Your task to perform on an android device: What is the recent news? Image 0: 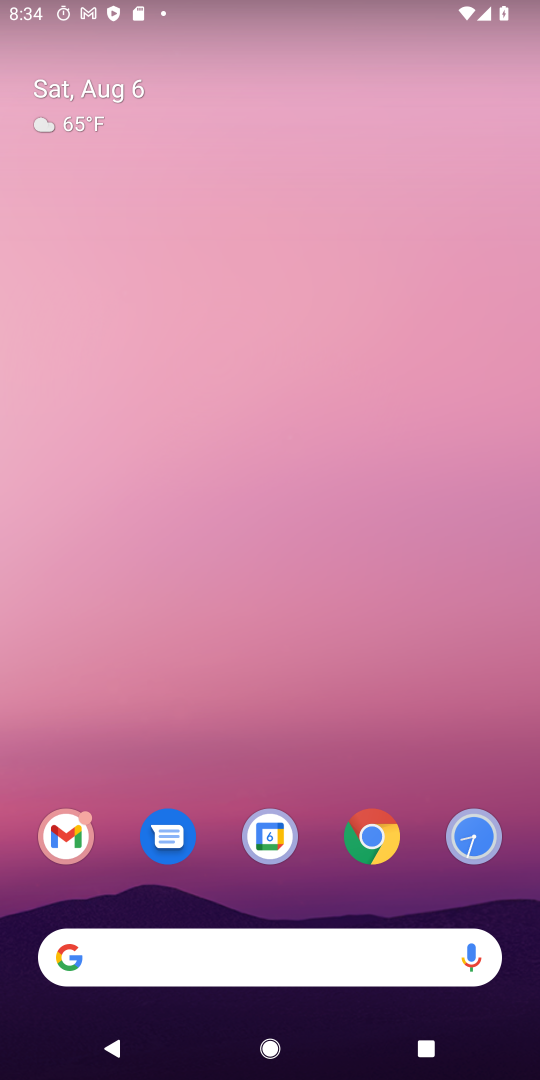
Step 0: drag from (402, 928) to (213, 19)
Your task to perform on an android device: What is the recent news? Image 1: 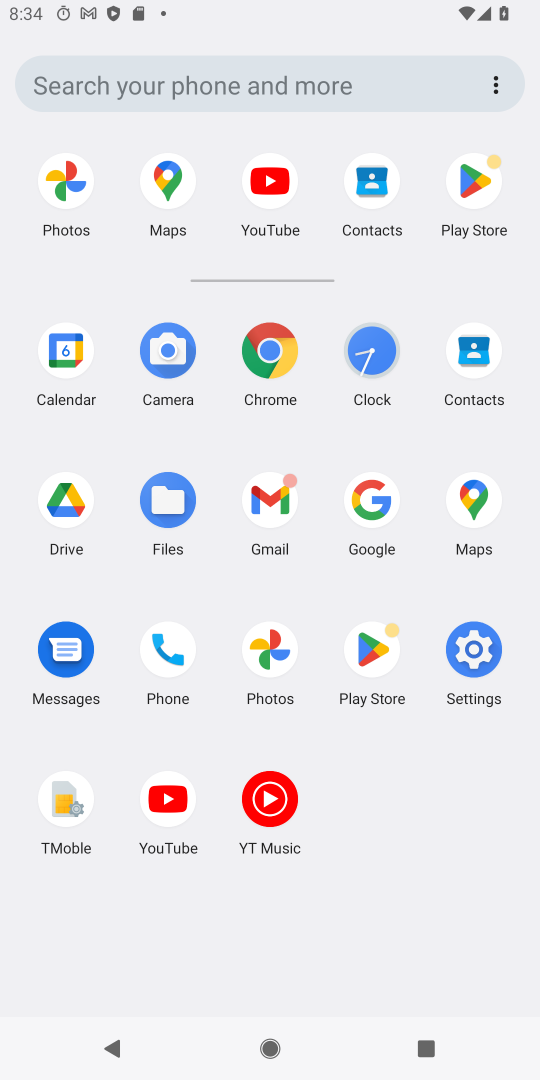
Step 1: click (368, 516)
Your task to perform on an android device: What is the recent news? Image 2: 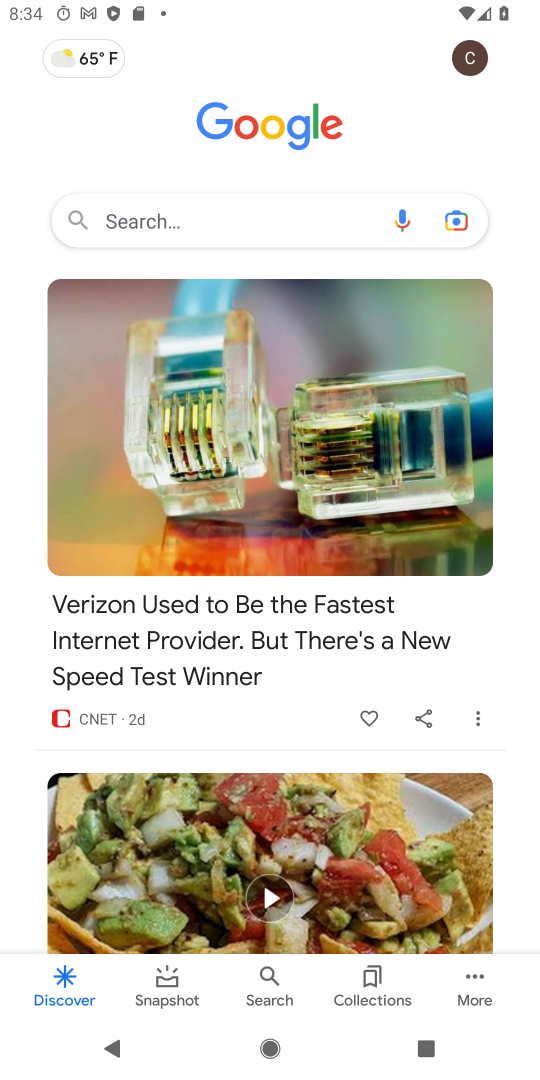
Step 2: click (124, 226)
Your task to perform on an android device: What is the recent news? Image 3: 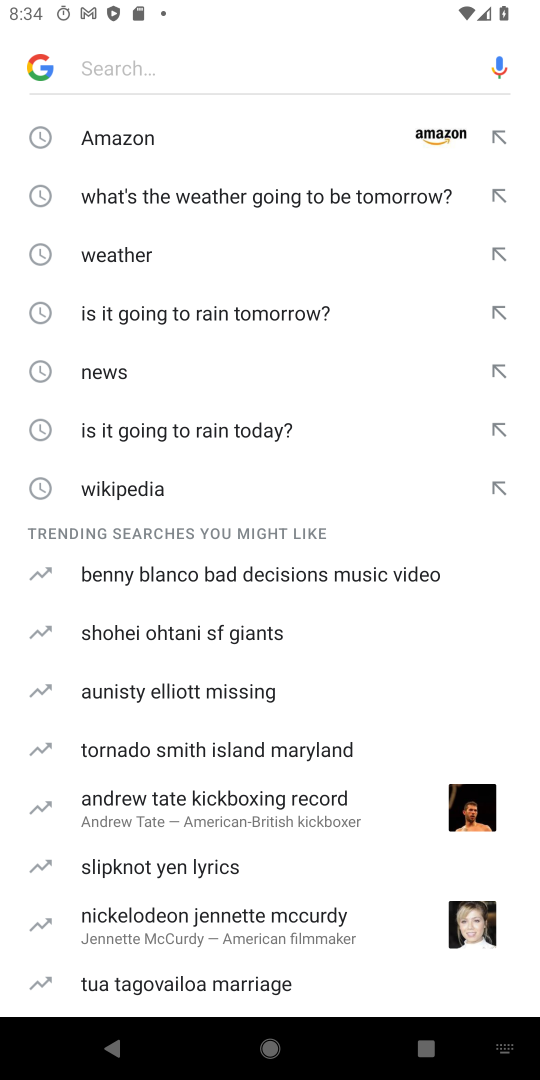
Step 3: type "What is the recent news?"
Your task to perform on an android device: What is the recent news? Image 4: 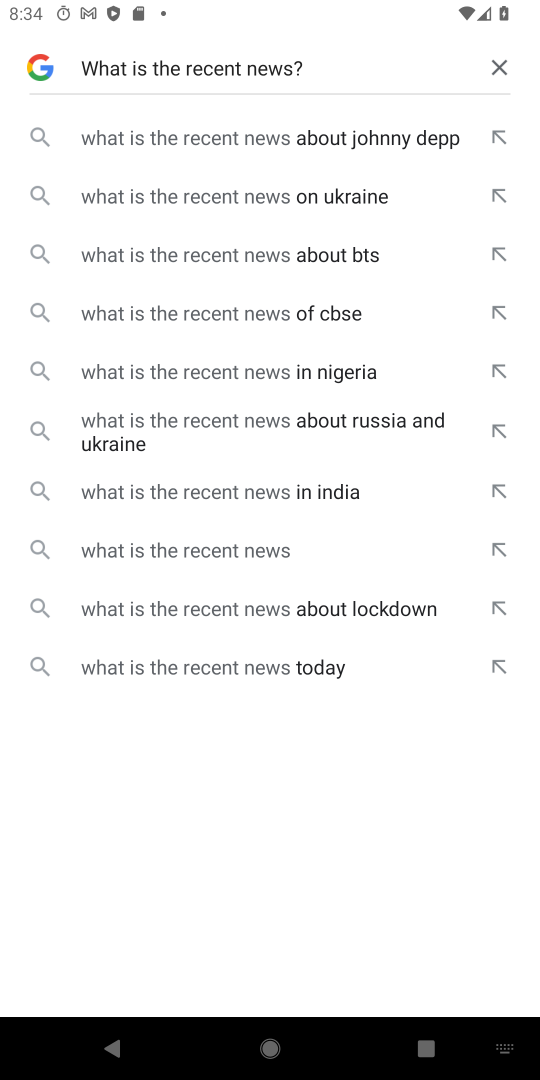
Step 4: click (173, 559)
Your task to perform on an android device: What is the recent news? Image 5: 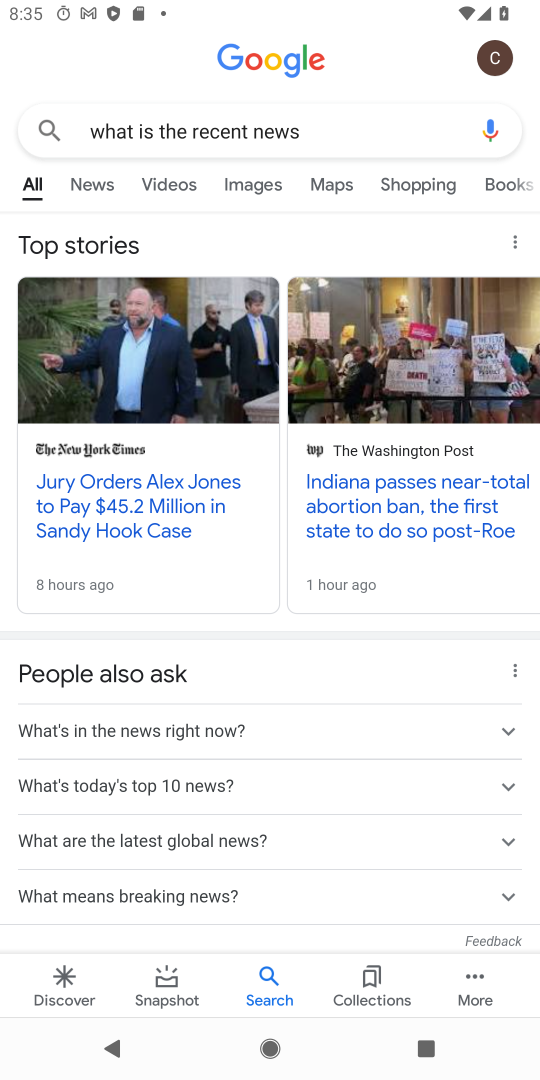
Step 5: task complete